Your task to perform on an android device: turn on notifications settings in the gmail app Image 0: 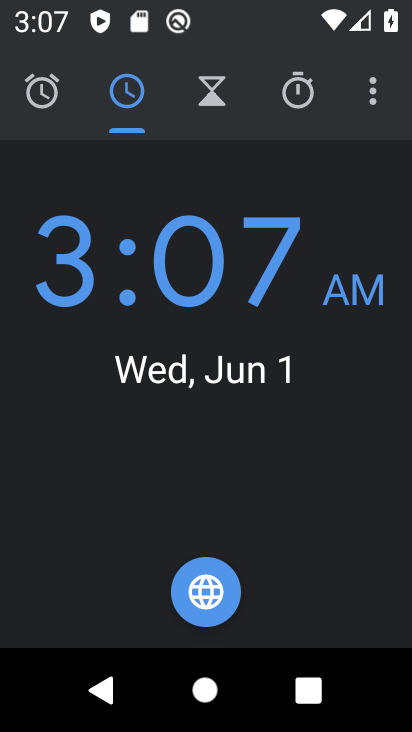
Step 0: press home button
Your task to perform on an android device: turn on notifications settings in the gmail app Image 1: 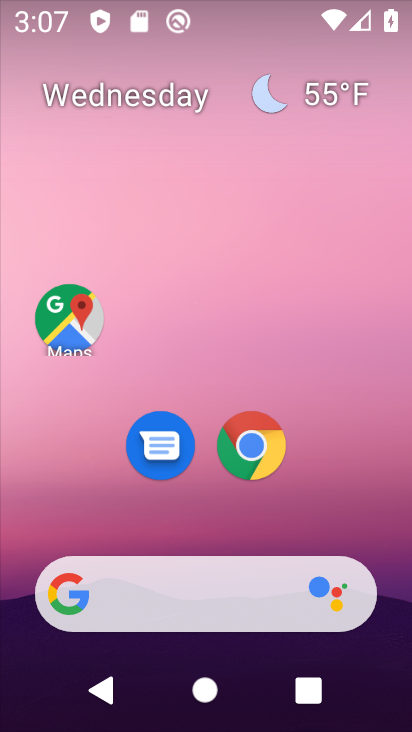
Step 1: drag from (320, 516) to (224, 13)
Your task to perform on an android device: turn on notifications settings in the gmail app Image 2: 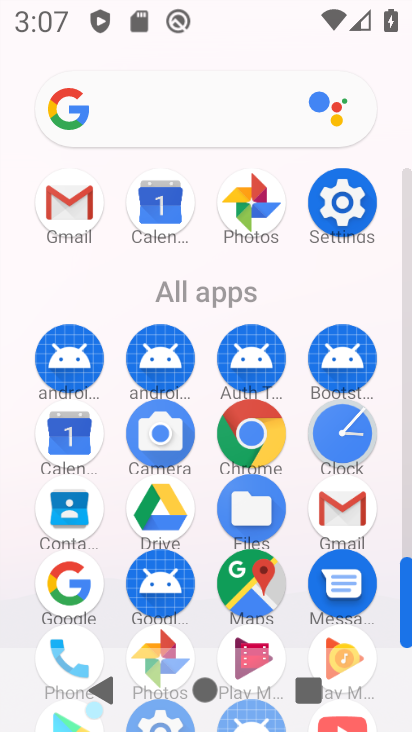
Step 2: click (72, 202)
Your task to perform on an android device: turn on notifications settings in the gmail app Image 3: 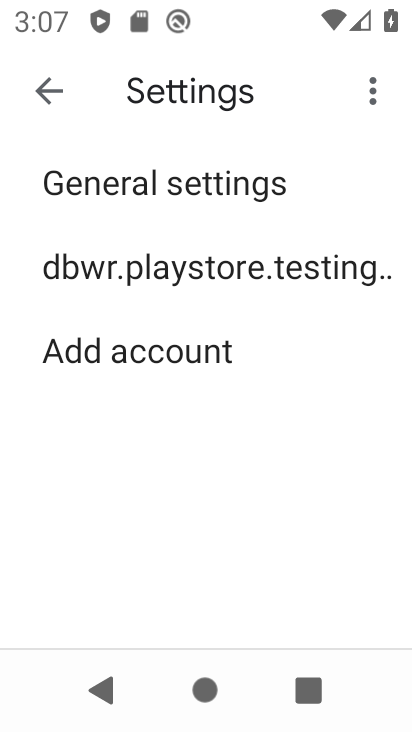
Step 3: click (84, 181)
Your task to perform on an android device: turn on notifications settings in the gmail app Image 4: 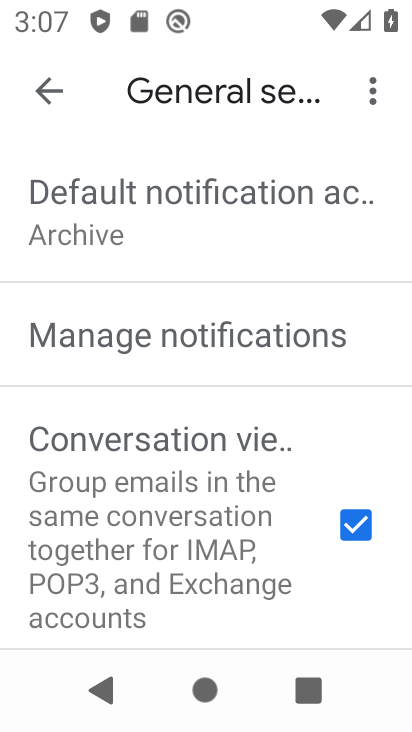
Step 4: click (111, 348)
Your task to perform on an android device: turn on notifications settings in the gmail app Image 5: 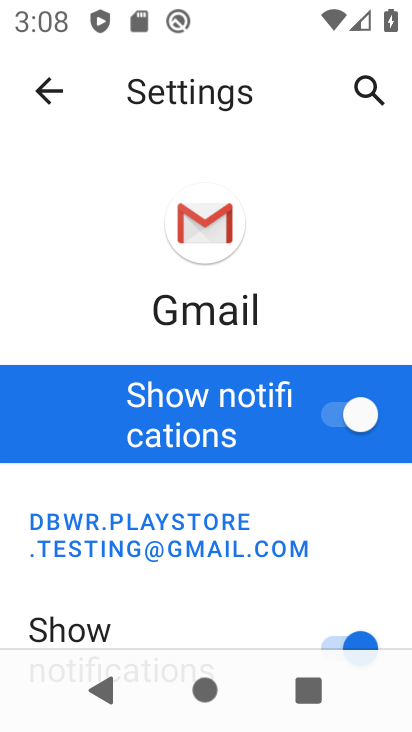
Step 5: task complete